Your task to perform on an android device: Add macbook pro 13 inch to the cart on costco.com, then select checkout. Image 0: 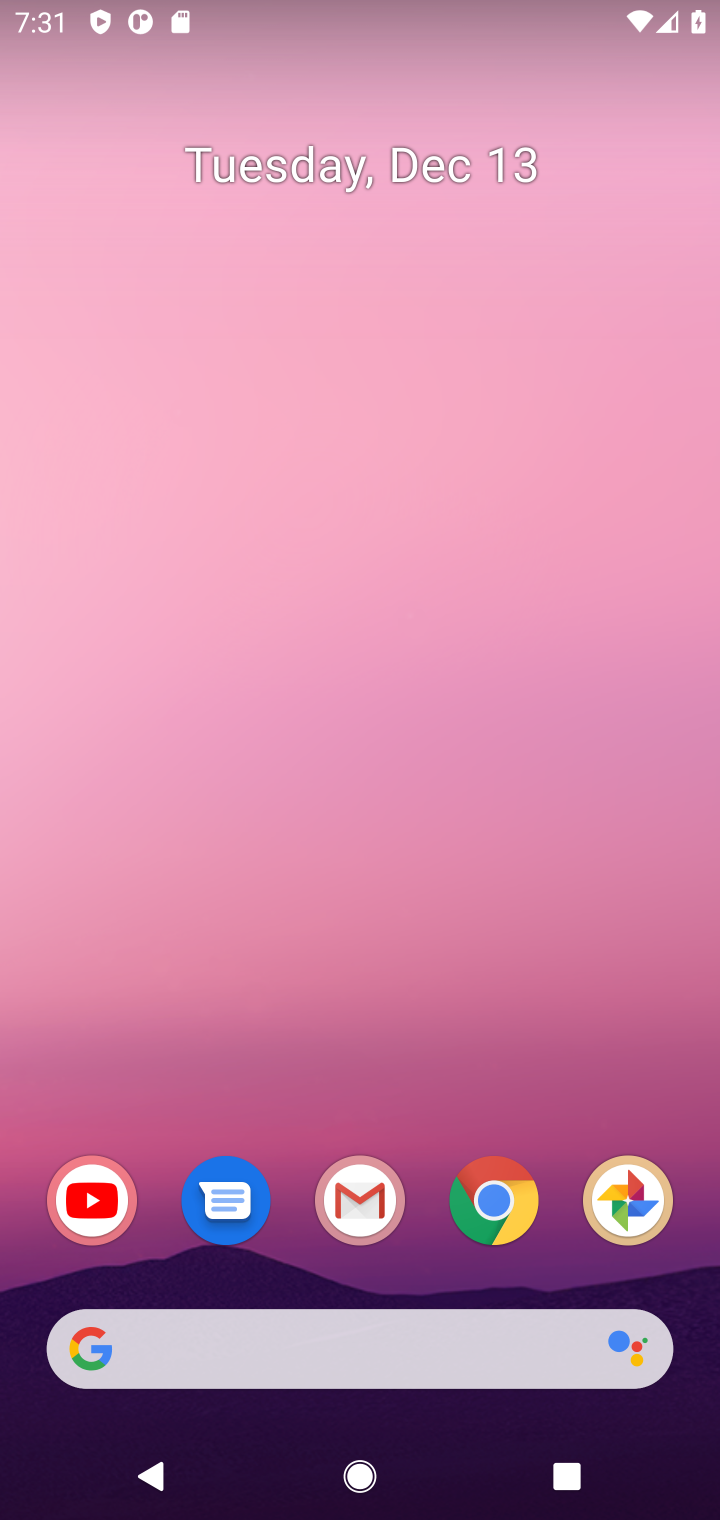
Step 0: click (348, 1371)
Your task to perform on an android device: Add macbook pro 13 inch to the cart on costco.com, then select checkout. Image 1: 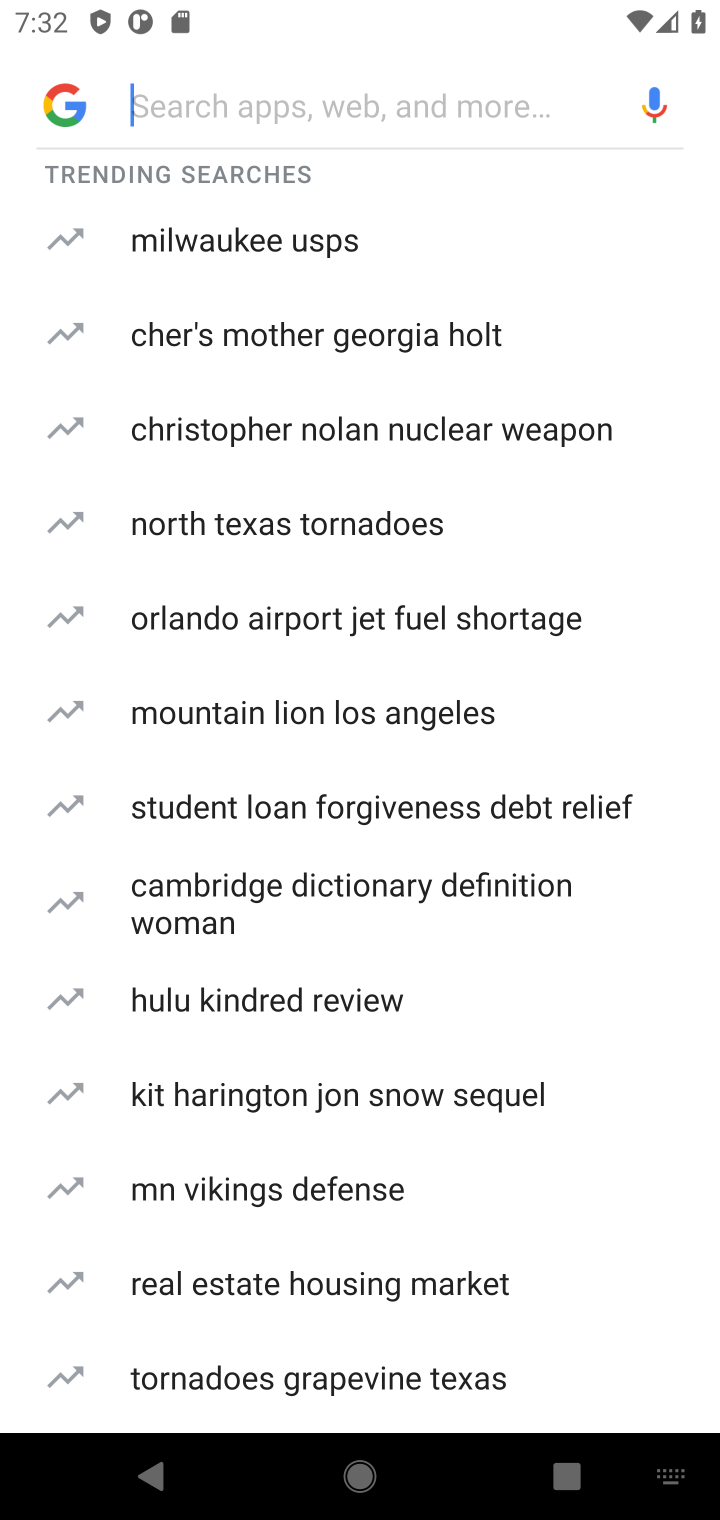
Step 1: type "costco.com"
Your task to perform on an android device: Add macbook pro 13 inch to the cart on costco.com, then select checkout. Image 2: 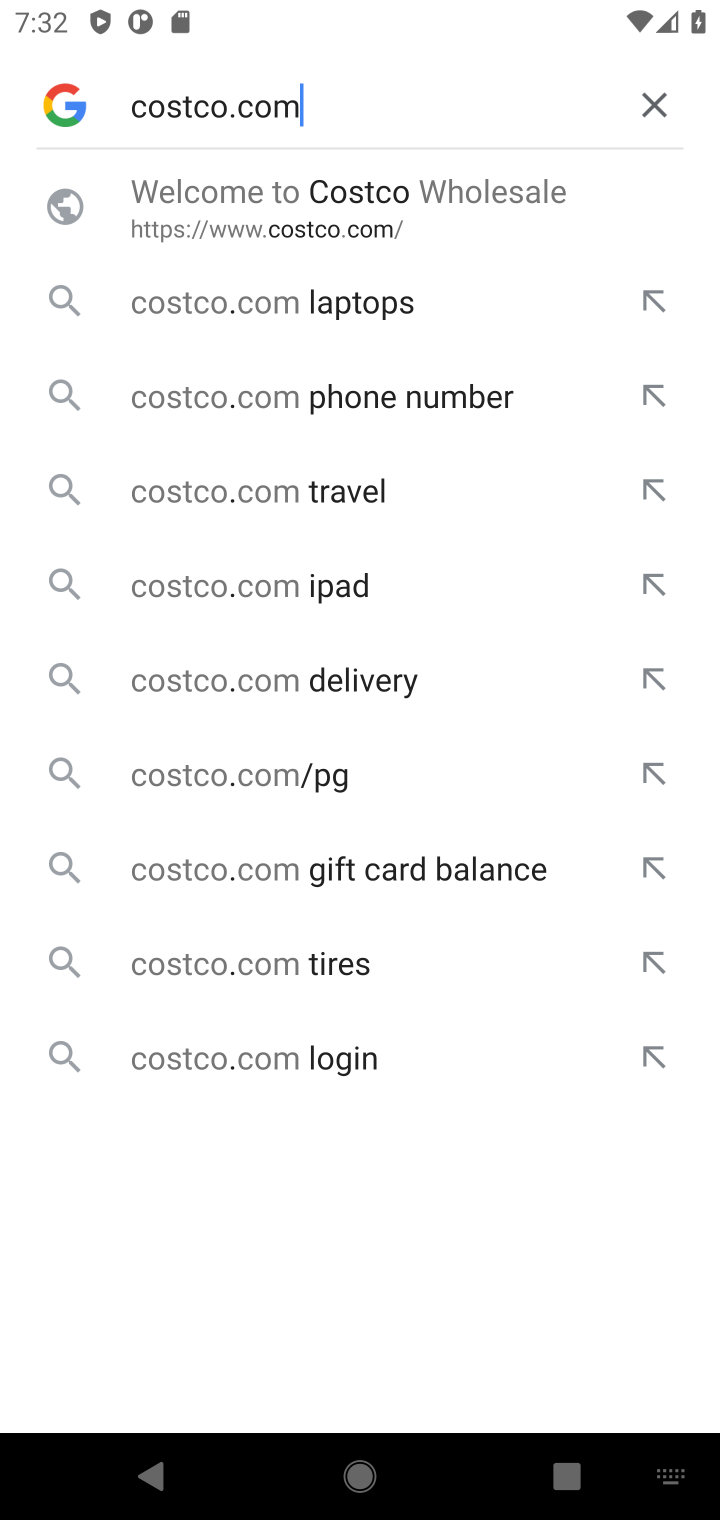
Step 2: click (386, 210)
Your task to perform on an android device: Add macbook pro 13 inch to the cart on costco.com, then select checkout. Image 3: 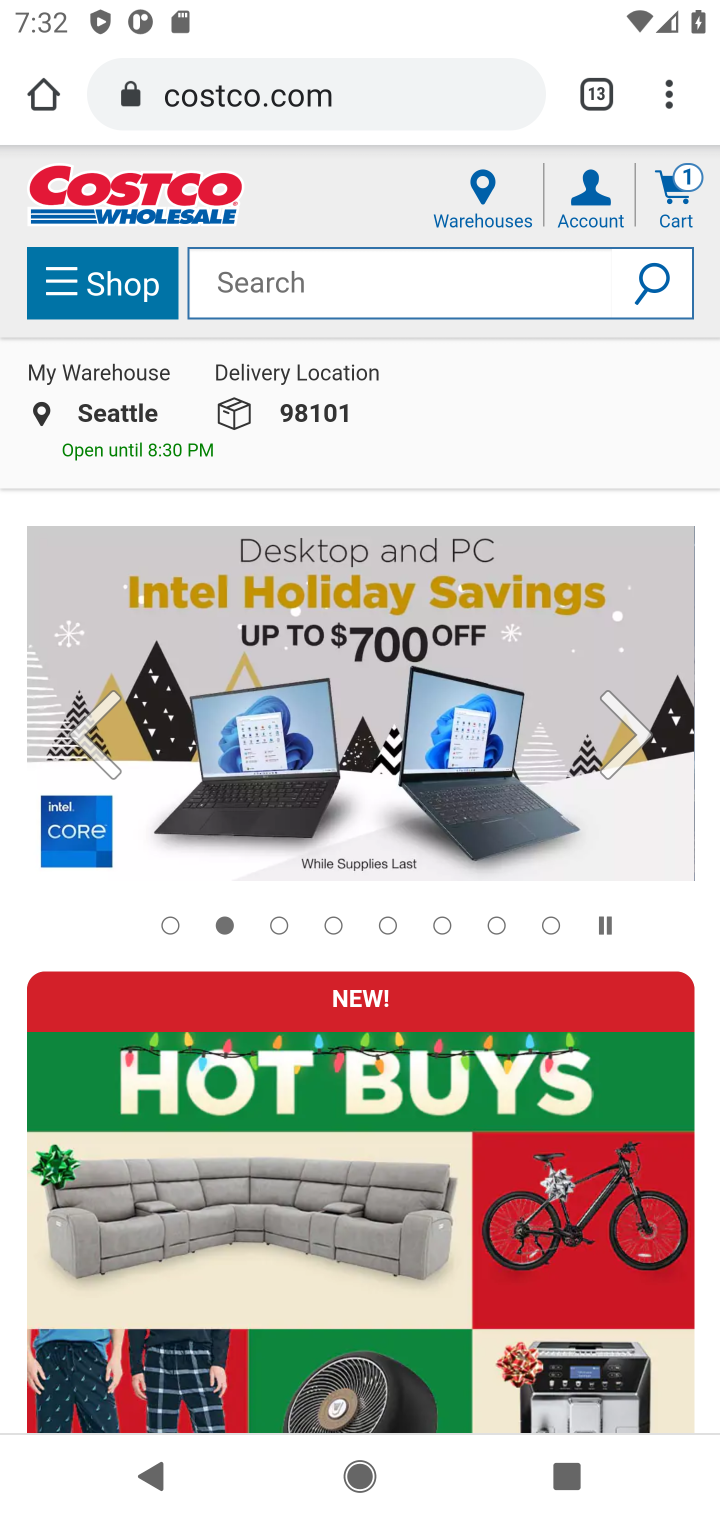
Step 3: click (323, 259)
Your task to perform on an android device: Add macbook pro 13 inch to the cart on costco.com, then select checkout. Image 4: 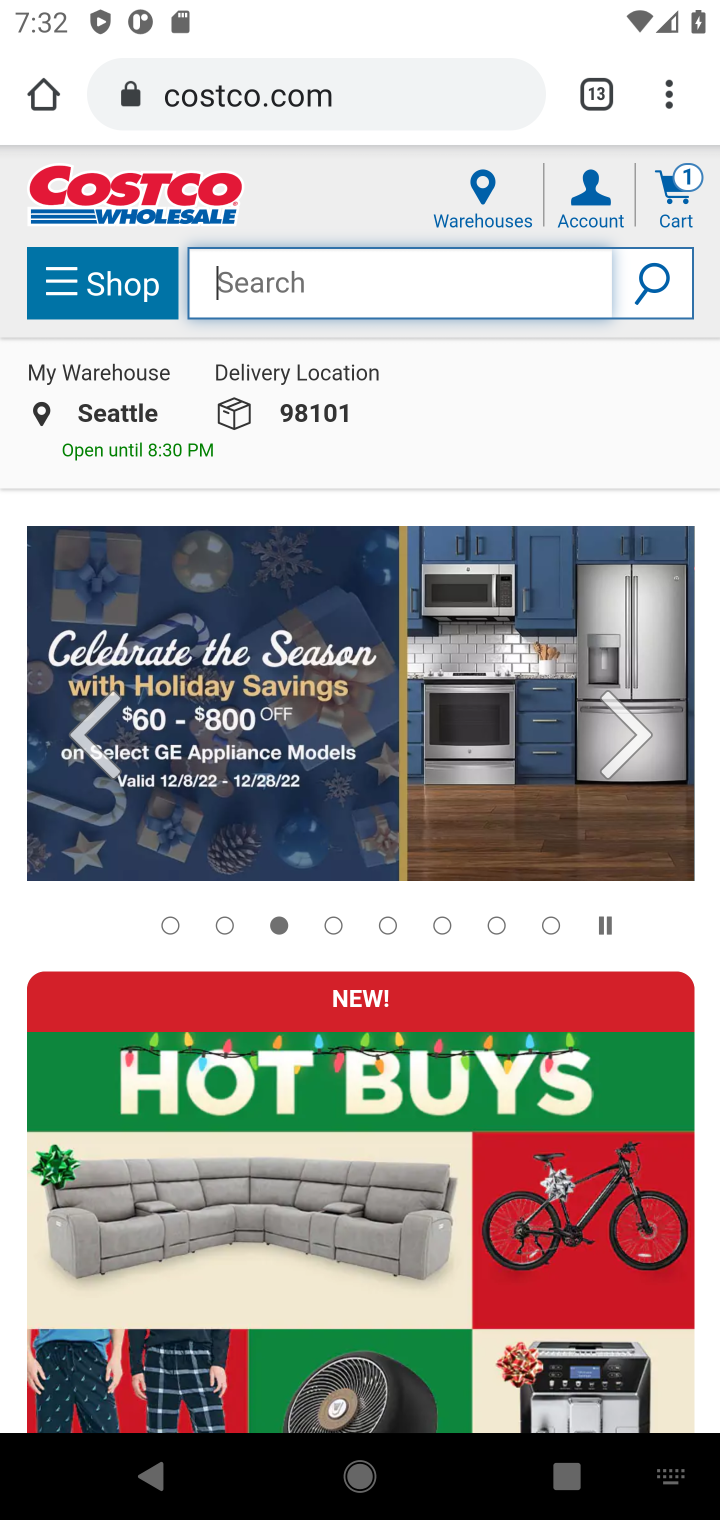
Step 4: type "macbook pro 13 inch"
Your task to perform on an android device: Add macbook pro 13 inch to the cart on costco.com, then select checkout. Image 5: 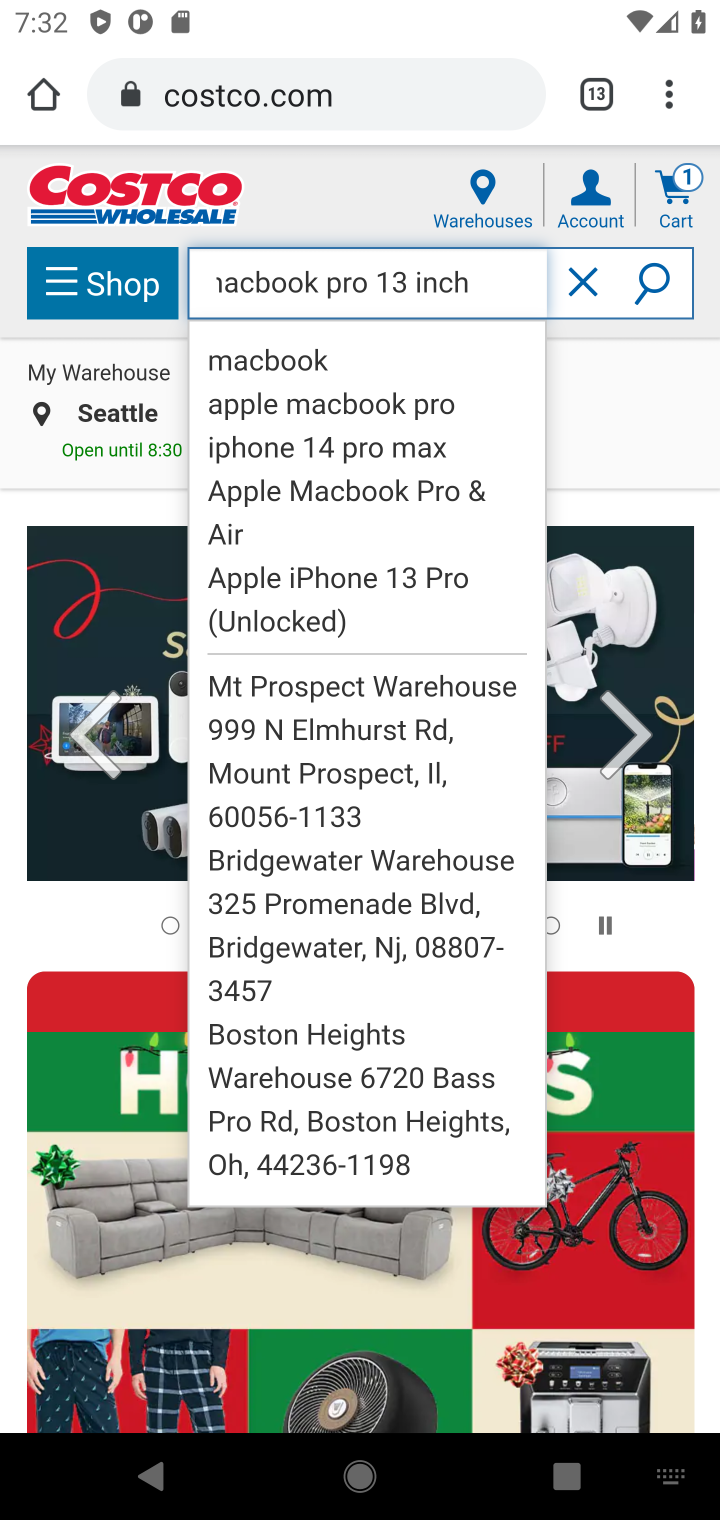
Step 5: click (634, 277)
Your task to perform on an android device: Add macbook pro 13 inch to the cart on costco.com, then select checkout. Image 6: 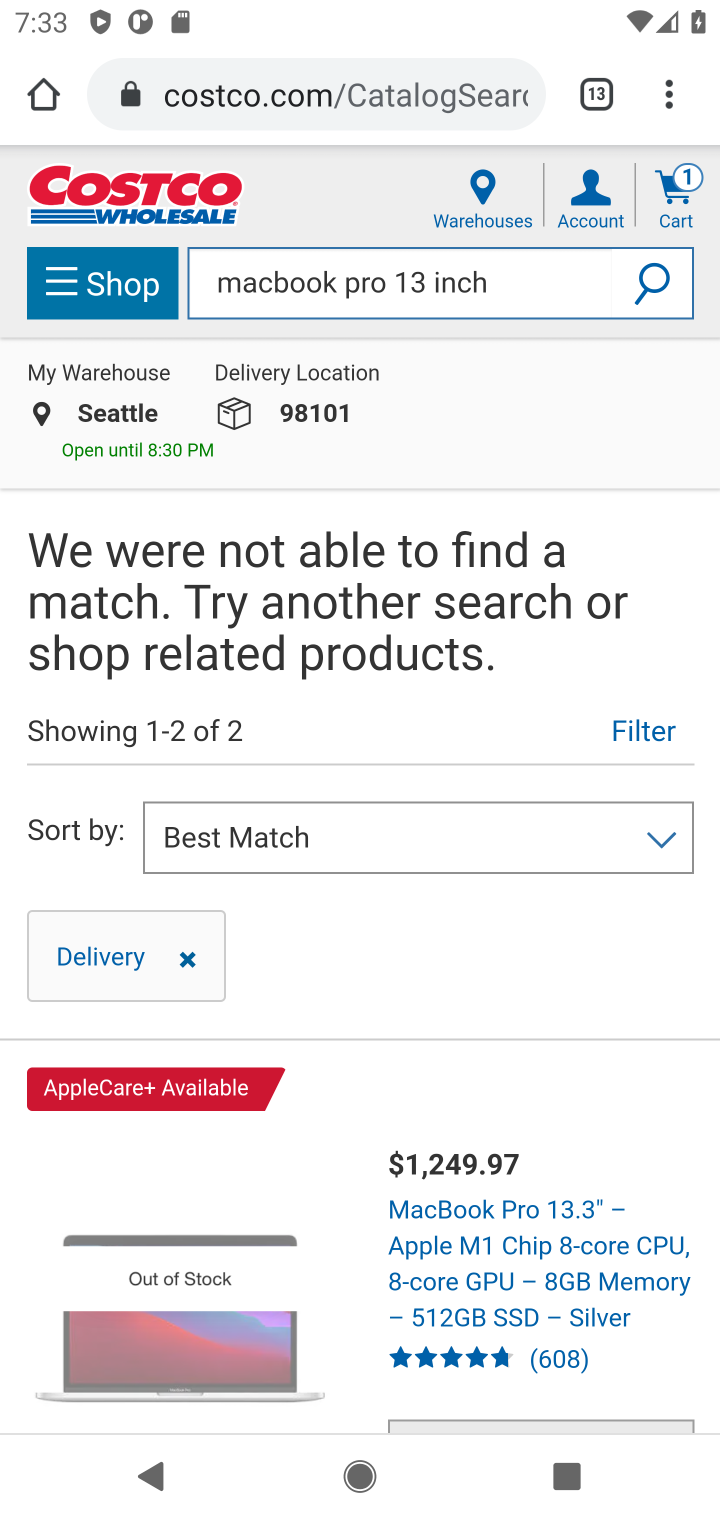
Step 6: click (488, 1224)
Your task to perform on an android device: Add macbook pro 13 inch to the cart on costco.com, then select checkout. Image 7: 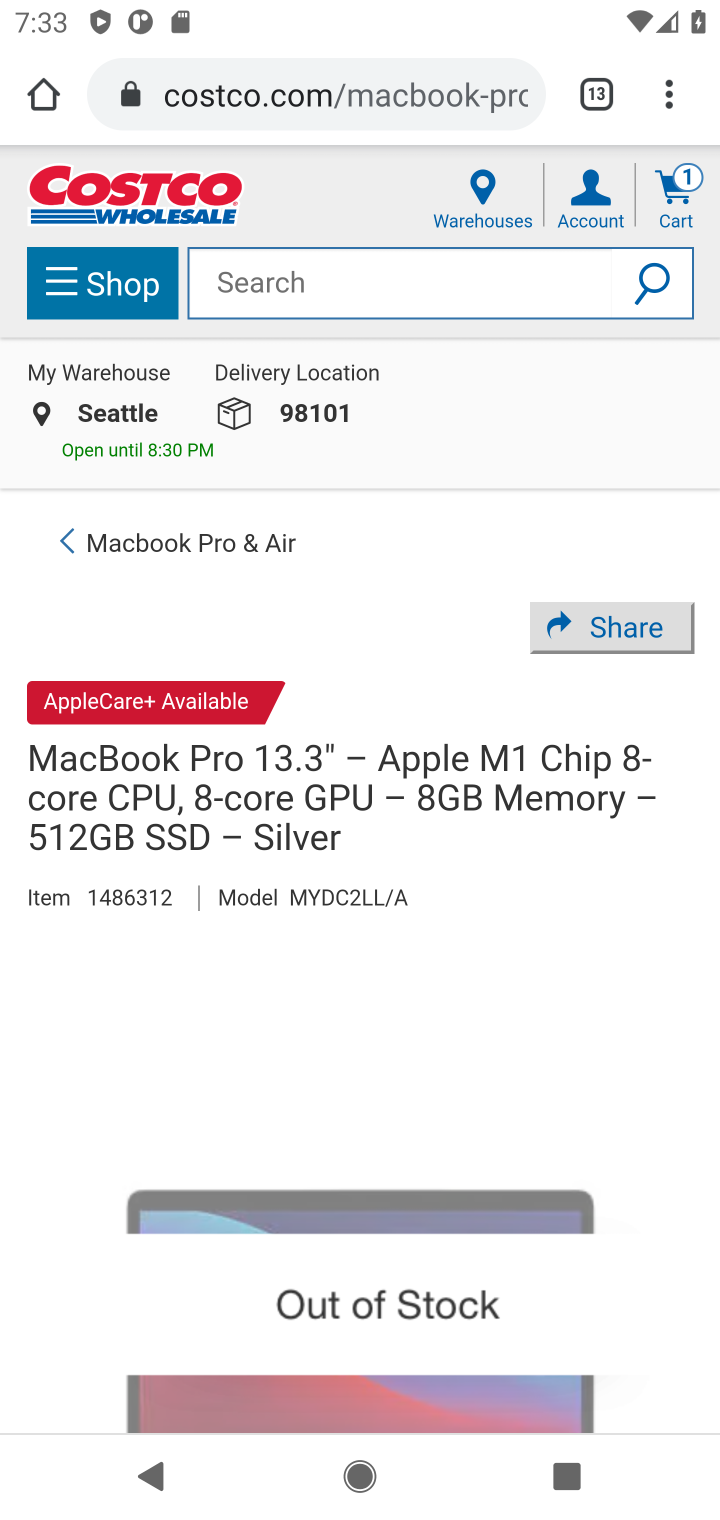
Step 7: task complete